Your task to perform on an android device: find which apps use the phone's location Image 0: 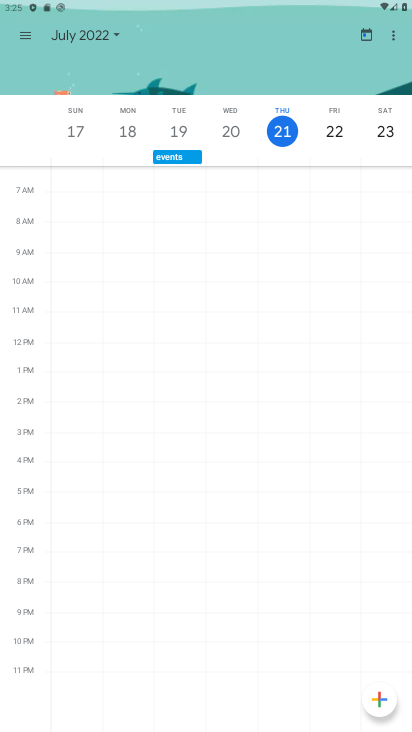
Step 0: press home button
Your task to perform on an android device: find which apps use the phone's location Image 1: 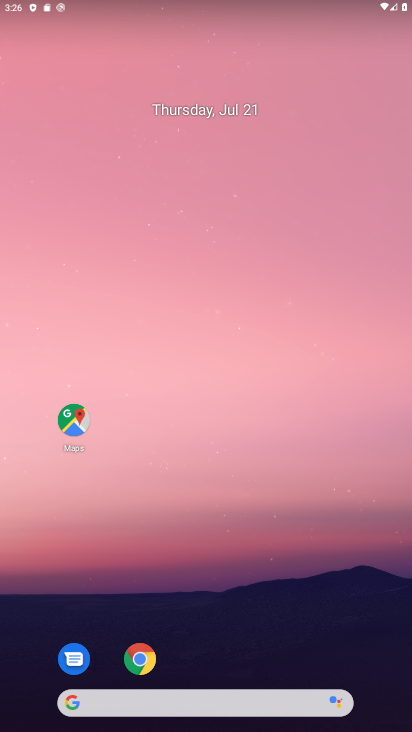
Step 1: drag from (244, 603) to (121, 103)
Your task to perform on an android device: find which apps use the phone's location Image 2: 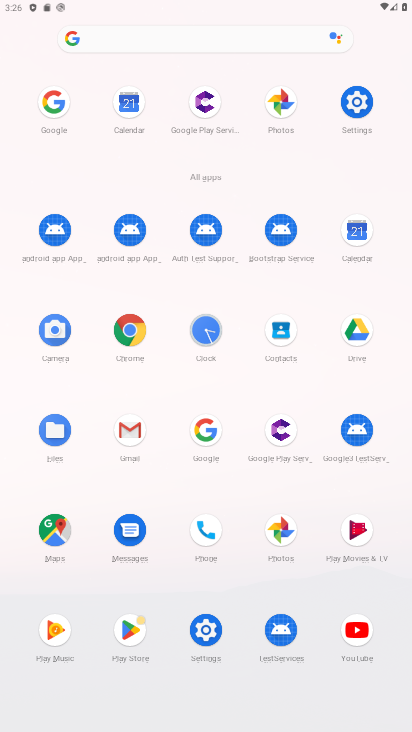
Step 2: click (356, 104)
Your task to perform on an android device: find which apps use the phone's location Image 3: 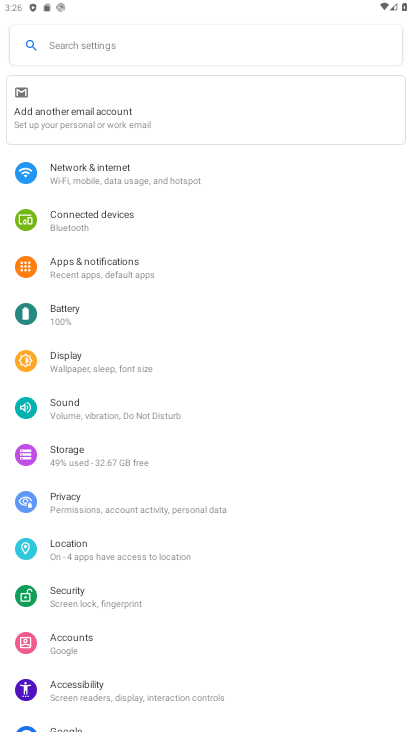
Step 3: click (68, 543)
Your task to perform on an android device: find which apps use the phone's location Image 4: 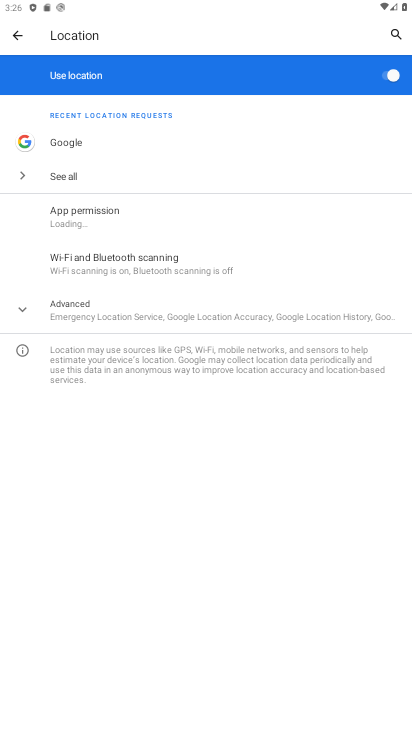
Step 4: click (29, 175)
Your task to perform on an android device: find which apps use the phone's location Image 5: 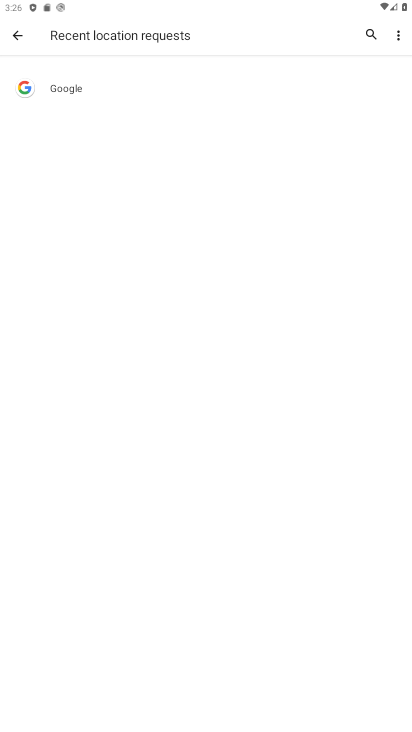
Step 5: task complete